Your task to perform on an android device: Open settings Image 0: 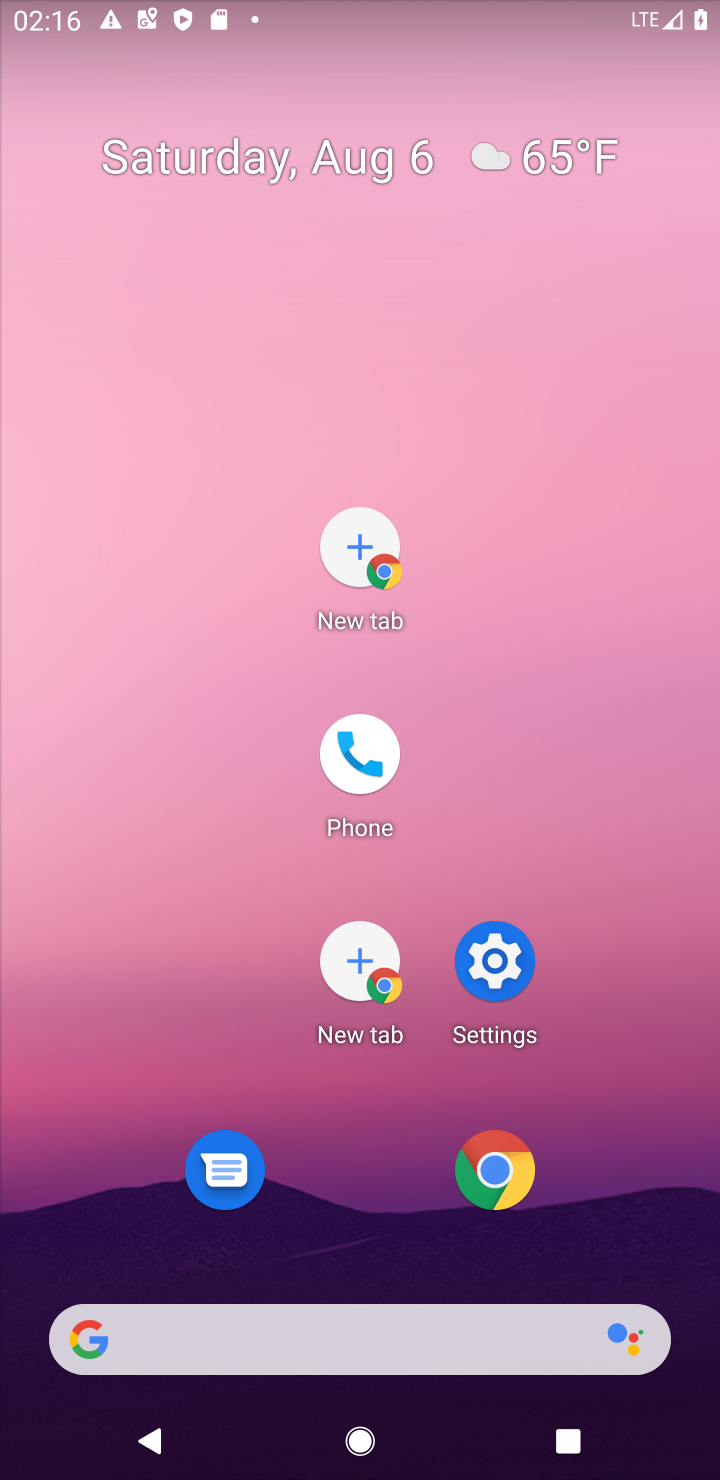
Step 0: click (499, 959)
Your task to perform on an android device: Open settings Image 1: 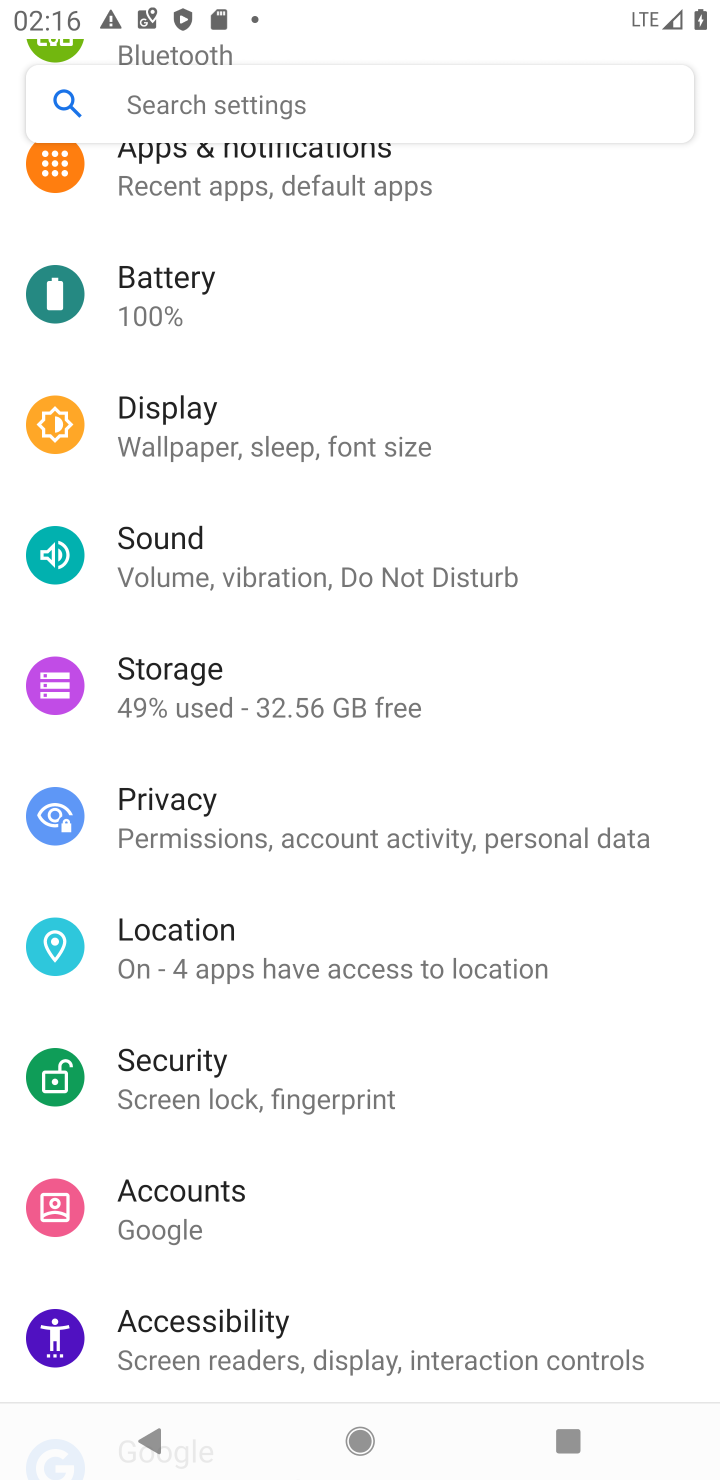
Step 1: task complete